Your task to perform on an android device: Set the phone to "Do not disturb". Image 0: 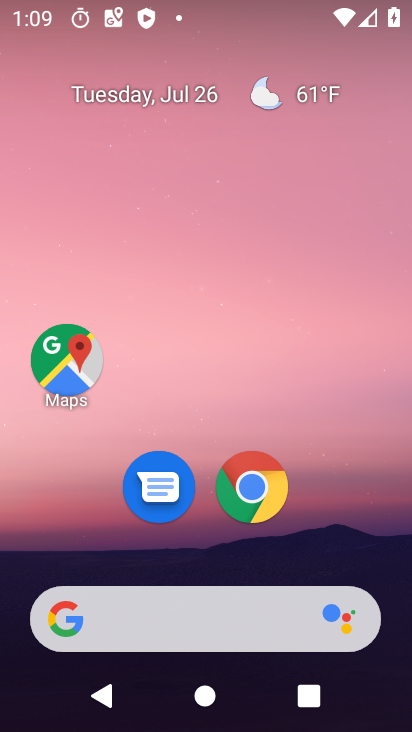
Step 0: drag from (199, 13) to (137, 524)
Your task to perform on an android device: Set the phone to "Do not disturb". Image 1: 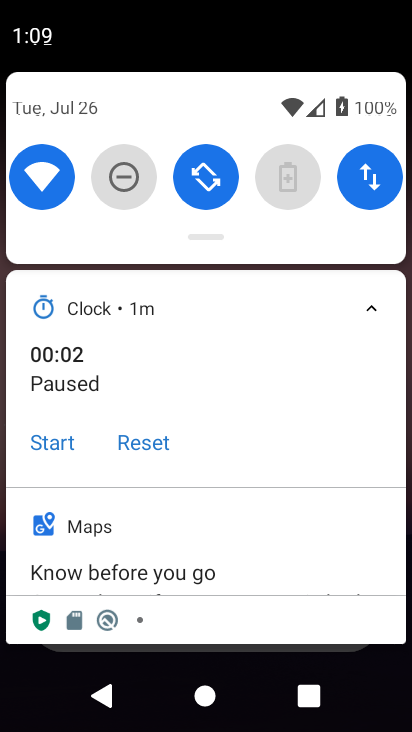
Step 1: click (124, 174)
Your task to perform on an android device: Set the phone to "Do not disturb". Image 2: 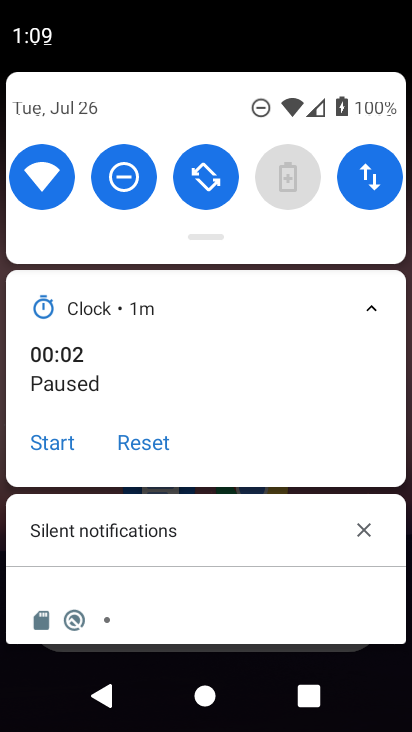
Step 2: task complete